Your task to perform on an android device: Go to sound settings Image 0: 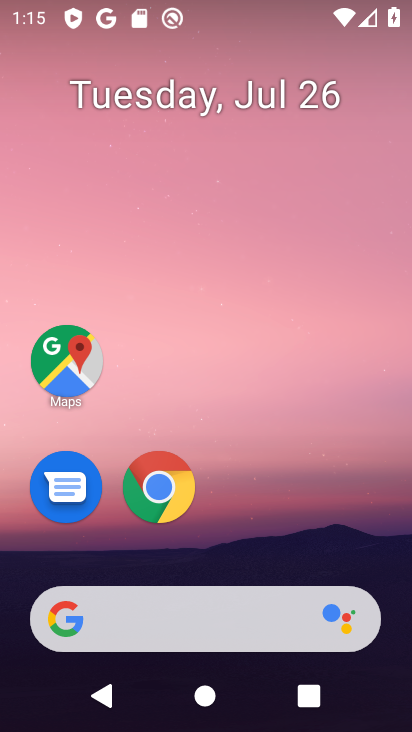
Step 0: drag from (205, 557) to (223, 126)
Your task to perform on an android device: Go to sound settings Image 1: 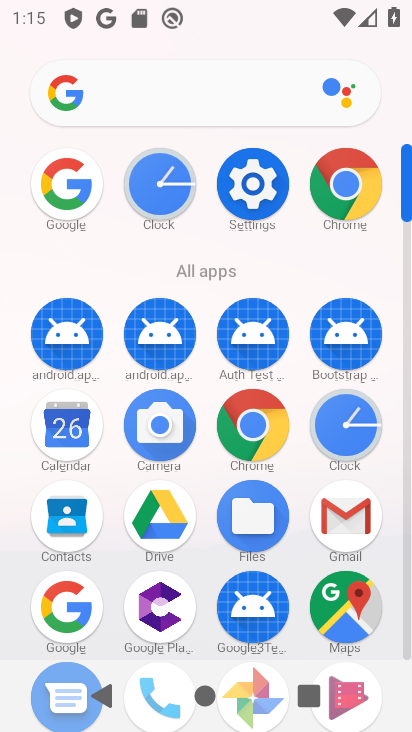
Step 1: click (254, 208)
Your task to perform on an android device: Go to sound settings Image 2: 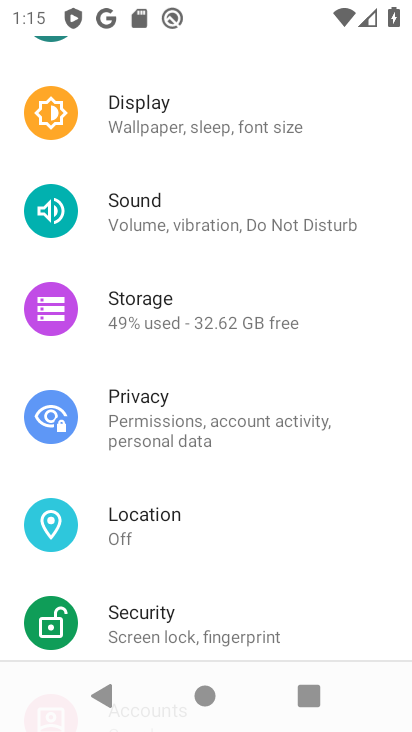
Step 2: click (242, 212)
Your task to perform on an android device: Go to sound settings Image 3: 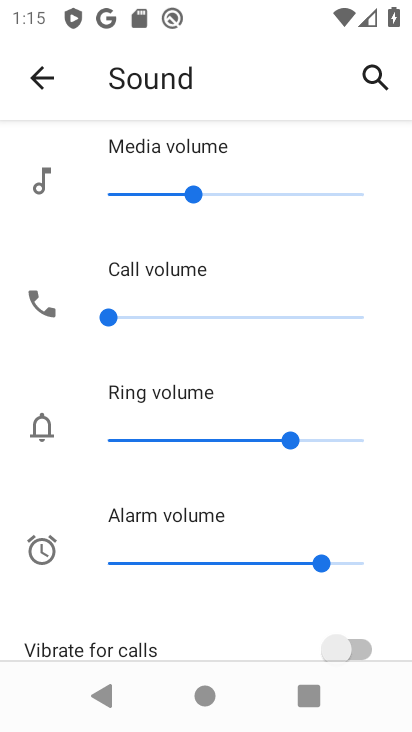
Step 3: task complete